Your task to perform on an android device: turn smart compose on in the gmail app Image 0: 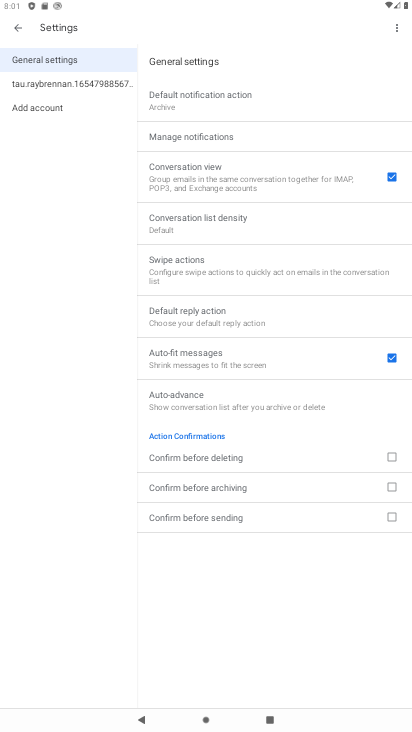
Step 0: click (34, 88)
Your task to perform on an android device: turn smart compose on in the gmail app Image 1: 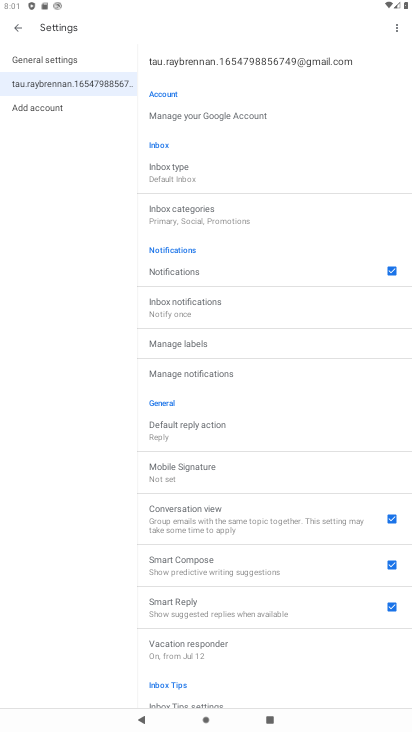
Step 1: task complete